Your task to perform on an android device: move a message to another label in the gmail app Image 0: 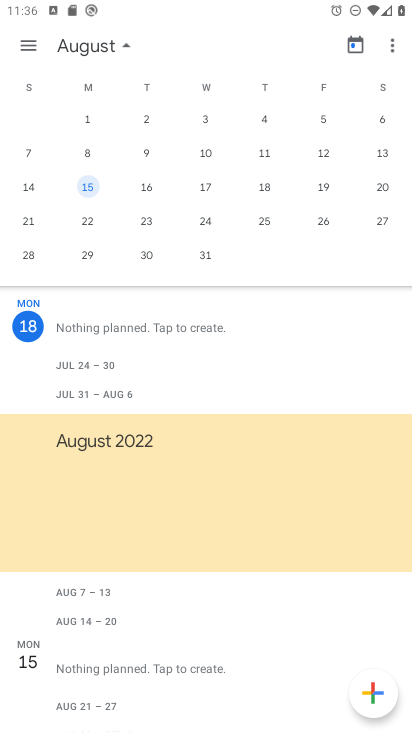
Step 0: press home button
Your task to perform on an android device: move a message to another label in the gmail app Image 1: 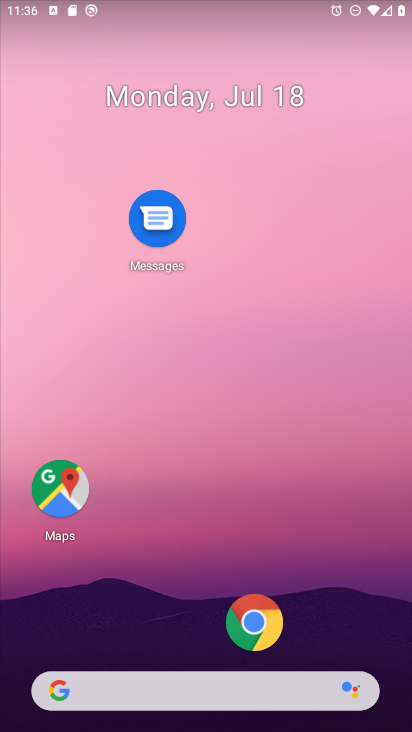
Step 1: drag from (173, 694) to (172, 247)
Your task to perform on an android device: move a message to another label in the gmail app Image 2: 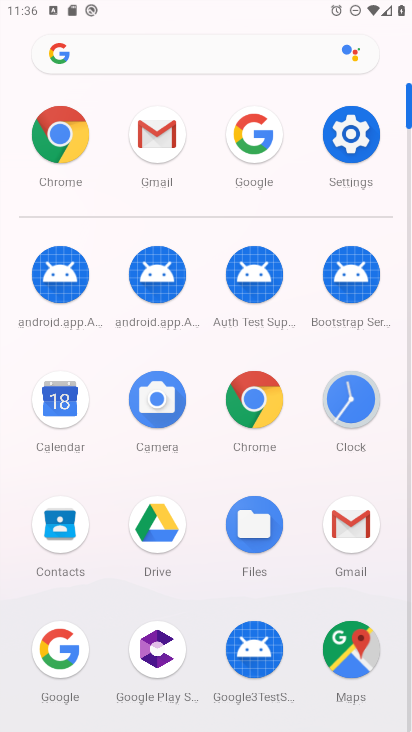
Step 2: click (345, 547)
Your task to perform on an android device: move a message to another label in the gmail app Image 3: 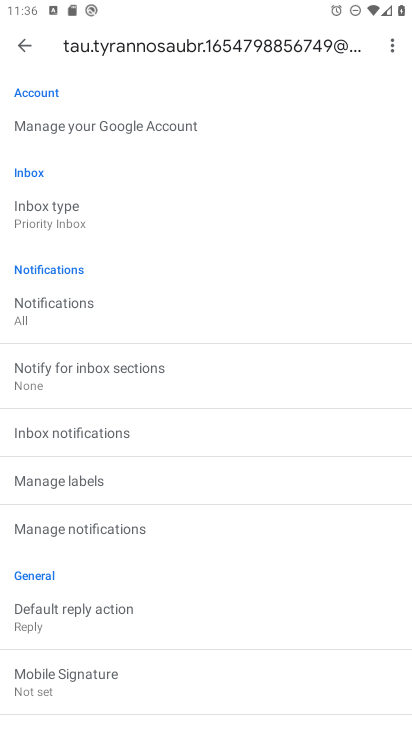
Step 3: click (18, 50)
Your task to perform on an android device: move a message to another label in the gmail app Image 4: 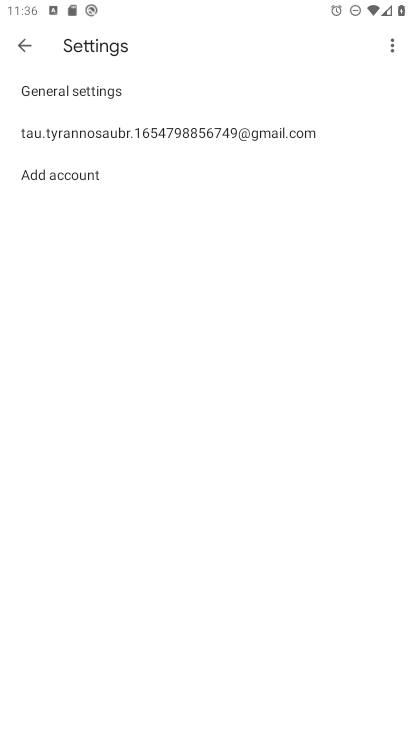
Step 4: click (25, 47)
Your task to perform on an android device: move a message to another label in the gmail app Image 5: 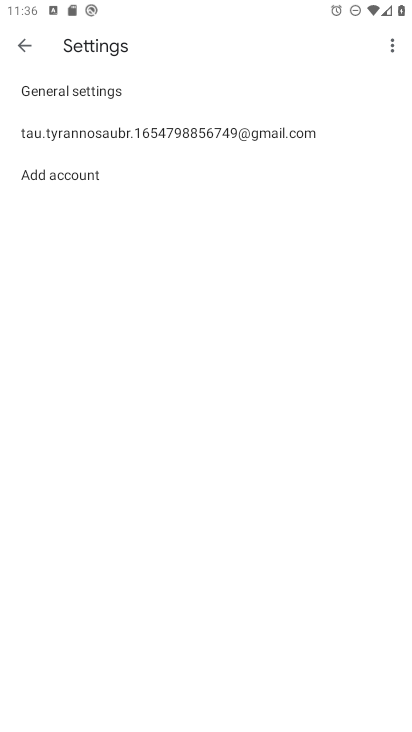
Step 5: click (24, 51)
Your task to perform on an android device: move a message to another label in the gmail app Image 6: 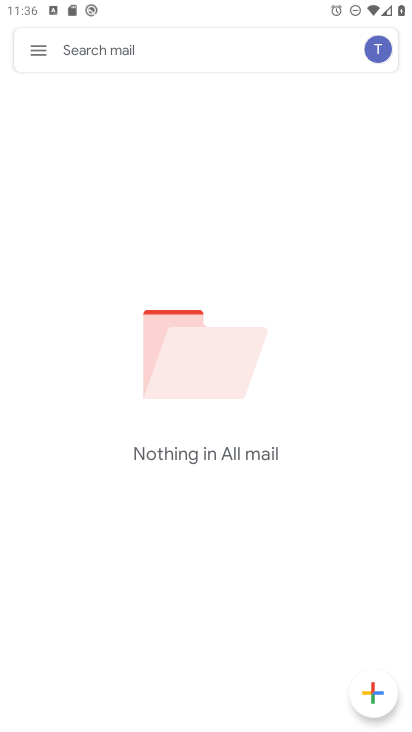
Step 6: click (33, 59)
Your task to perform on an android device: move a message to another label in the gmail app Image 7: 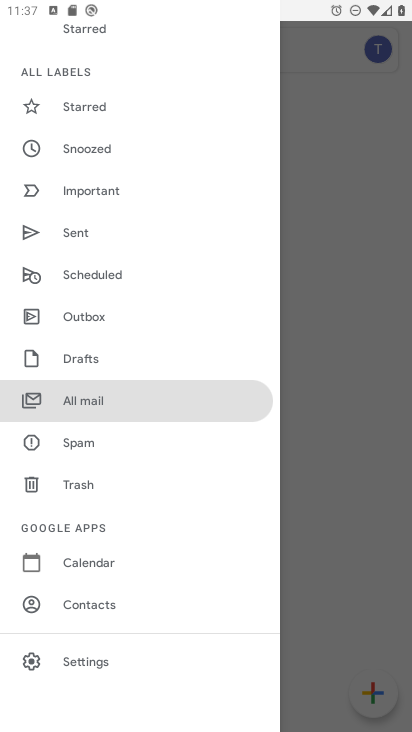
Step 7: click (92, 414)
Your task to perform on an android device: move a message to another label in the gmail app Image 8: 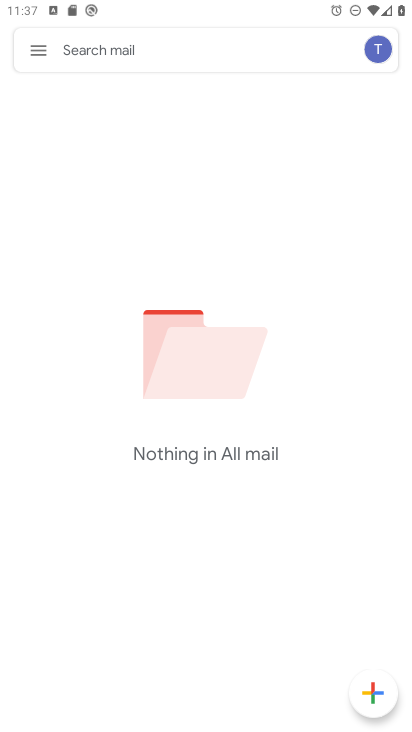
Step 8: task complete